Your task to perform on an android device: Go to network settings Image 0: 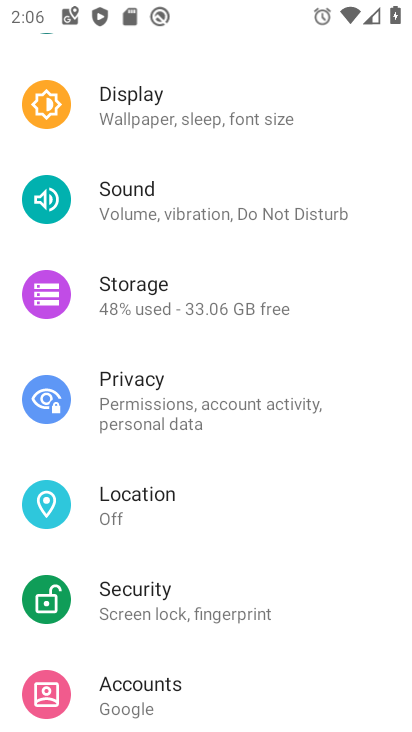
Step 0: drag from (239, 261) to (316, 613)
Your task to perform on an android device: Go to network settings Image 1: 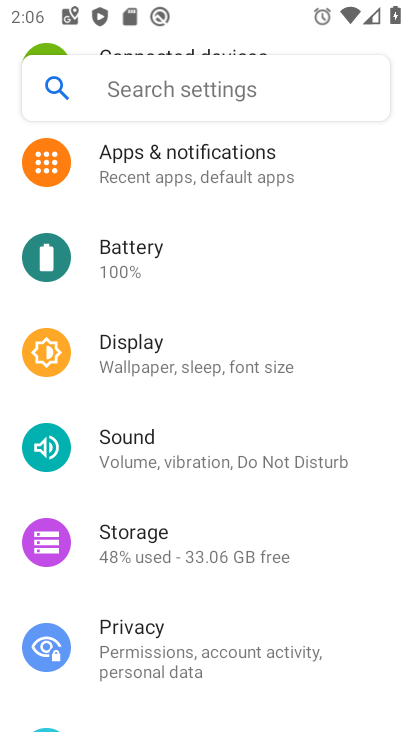
Step 1: drag from (210, 220) to (290, 589)
Your task to perform on an android device: Go to network settings Image 2: 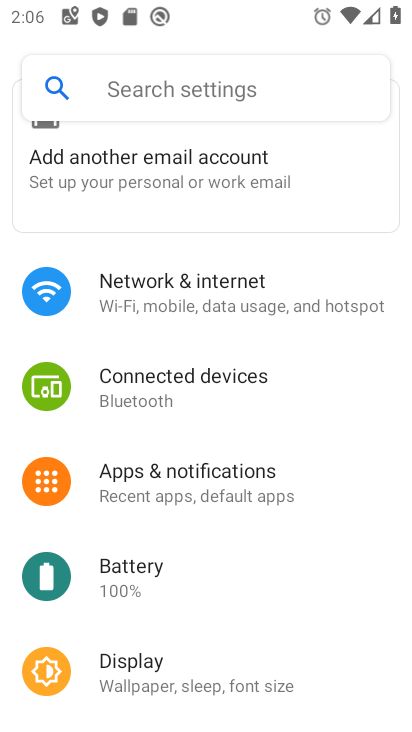
Step 2: click (226, 291)
Your task to perform on an android device: Go to network settings Image 3: 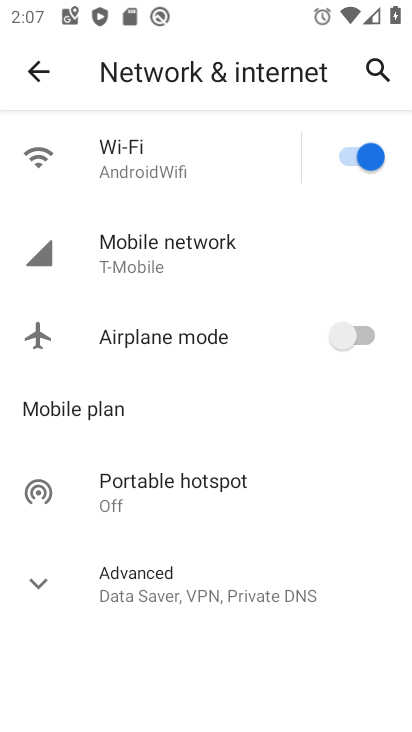
Step 3: task complete